Your task to perform on an android device: Search for the best gaming monitor on Best Buy Image 0: 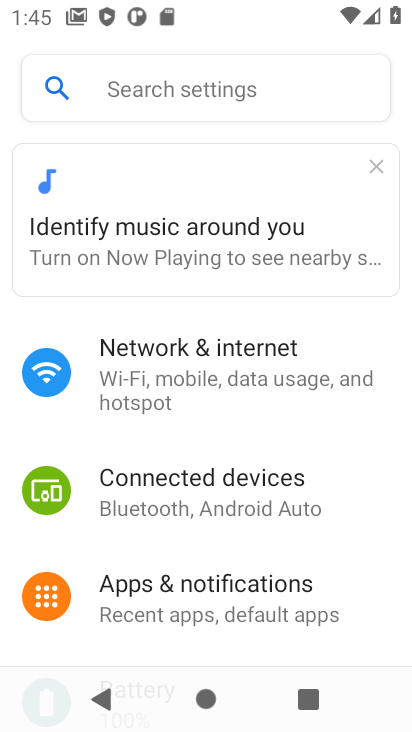
Step 0: press home button
Your task to perform on an android device: Search for the best gaming monitor on Best Buy Image 1: 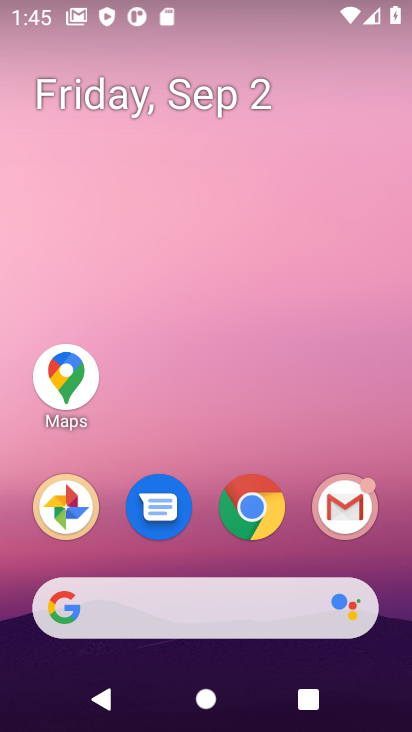
Step 1: click (251, 512)
Your task to perform on an android device: Search for the best gaming monitor on Best Buy Image 2: 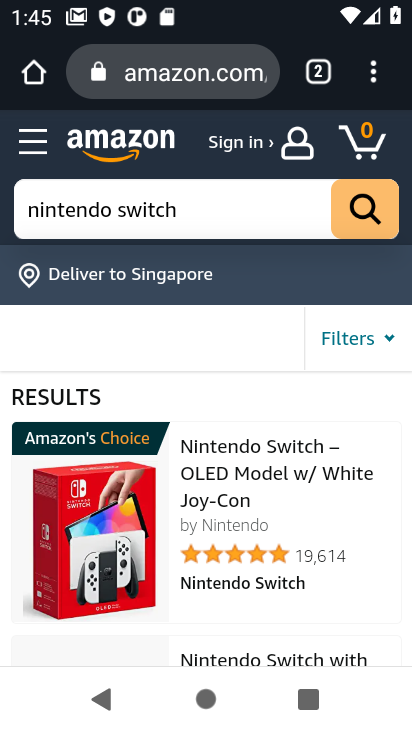
Step 2: click (171, 206)
Your task to perform on an android device: Search for the best gaming monitor on Best Buy Image 3: 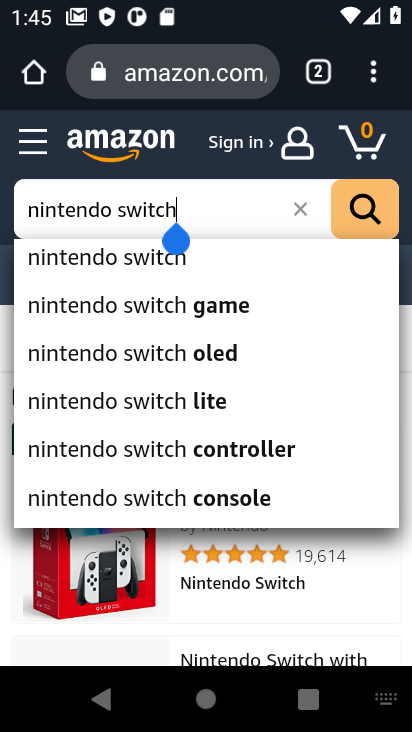
Step 3: click (302, 210)
Your task to perform on an android device: Search for the best gaming monitor on Best Buy Image 4: 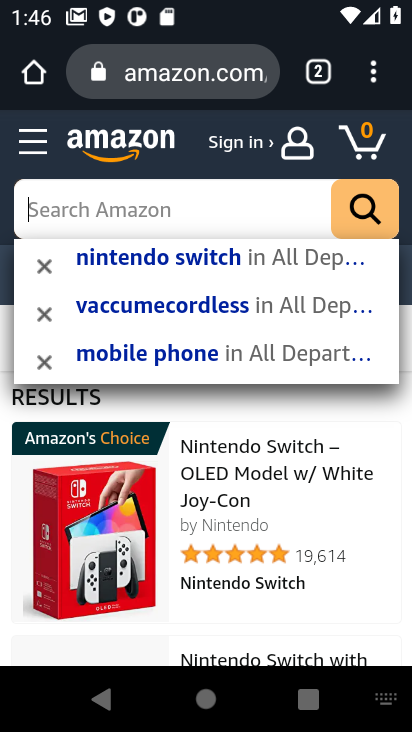
Step 4: type "gamming monitior"
Your task to perform on an android device: Search for the best gaming monitor on Best Buy Image 5: 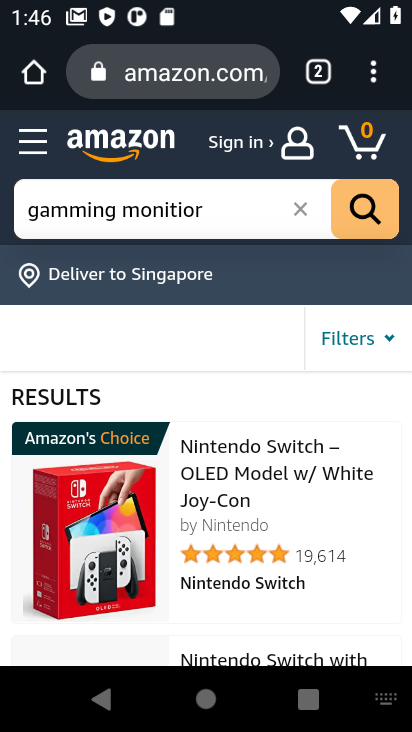
Step 5: click (351, 200)
Your task to perform on an android device: Search for the best gaming monitor on Best Buy Image 6: 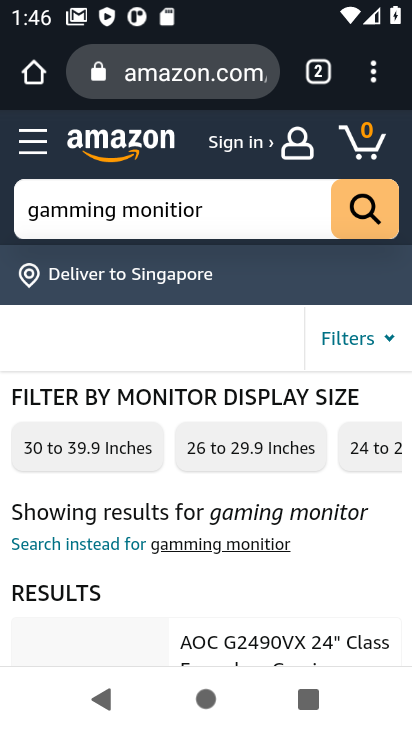
Step 6: drag from (151, 652) to (171, 490)
Your task to perform on an android device: Search for the best gaming monitor on Best Buy Image 7: 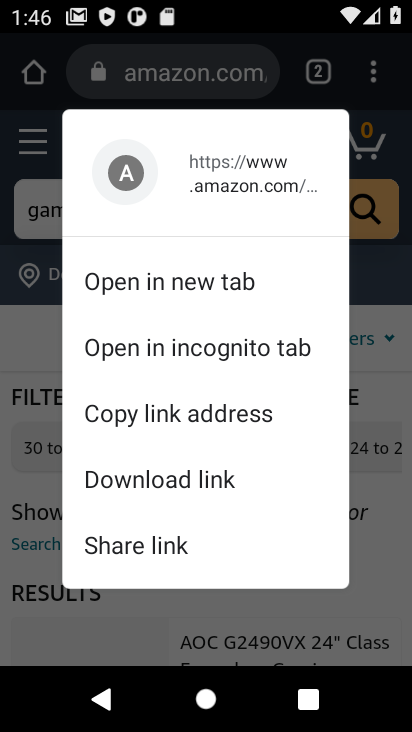
Step 7: click (36, 622)
Your task to perform on an android device: Search for the best gaming monitor on Best Buy Image 8: 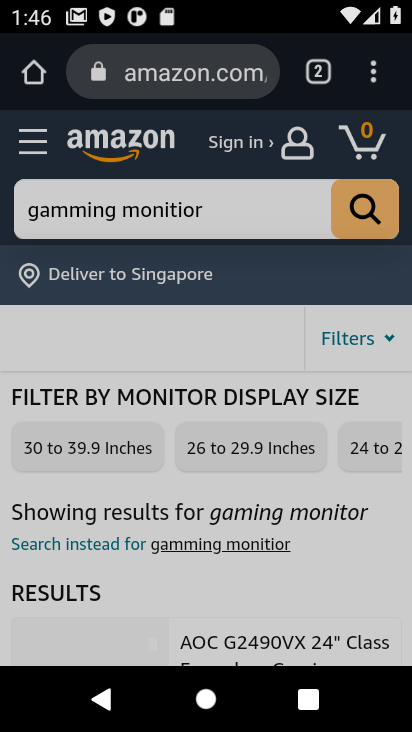
Step 8: drag from (36, 622) to (51, 308)
Your task to perform on an android device: Search for the best gaming monitor on Best Buy Image 9: 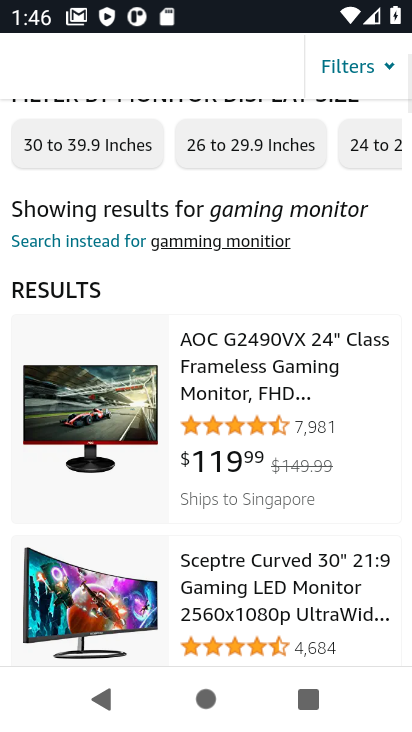
Step 9: click (162, 432)
Your task to perform on an android device: Search for the best gaming monitor on Best Buy Image 10: 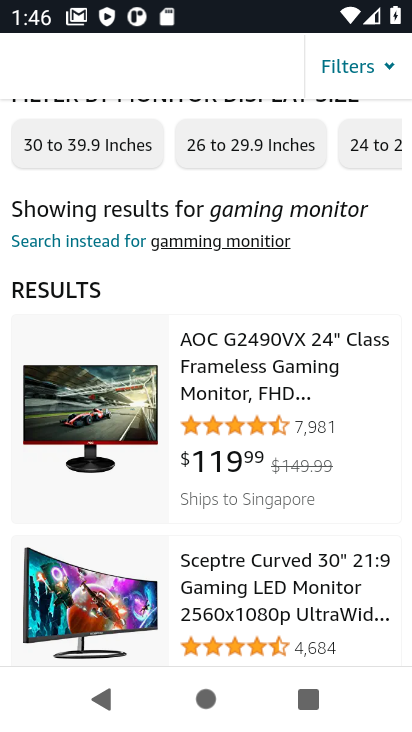
Step 10: task complete